Your task to perform on an android device: What's the weather today? Image 0: 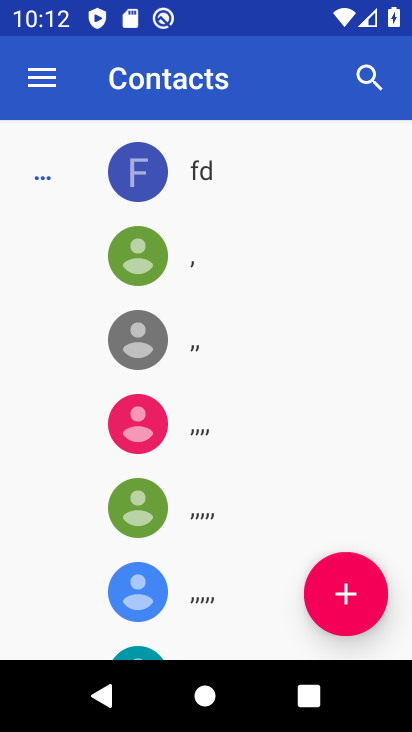
Step 0: press home button
Your task to perform on an android device: What's the weather today? Image 1: 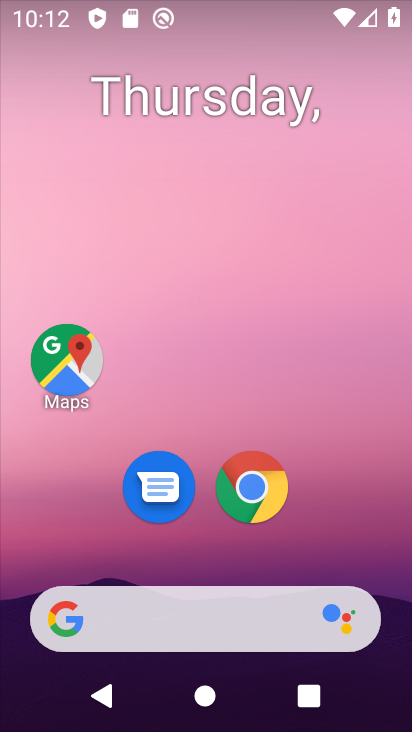
Step 1: drag from (313, 569) to (238, 181)
Your task to perform on an android device: What's the weather today? Image 2: 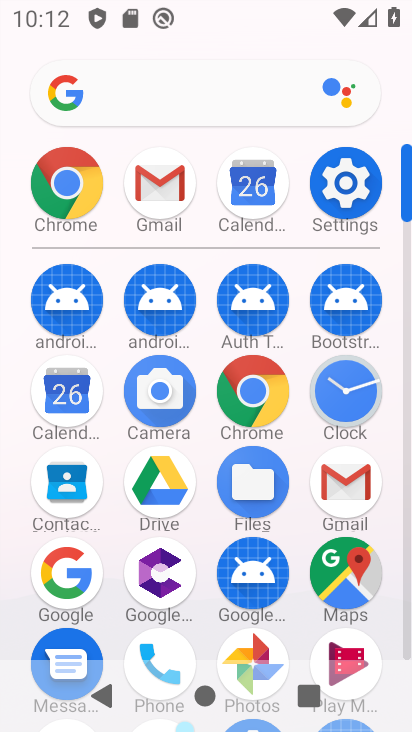
Step 2: click (65, 172)
Your task to perform on an android device: What's the weather today? Image 3: 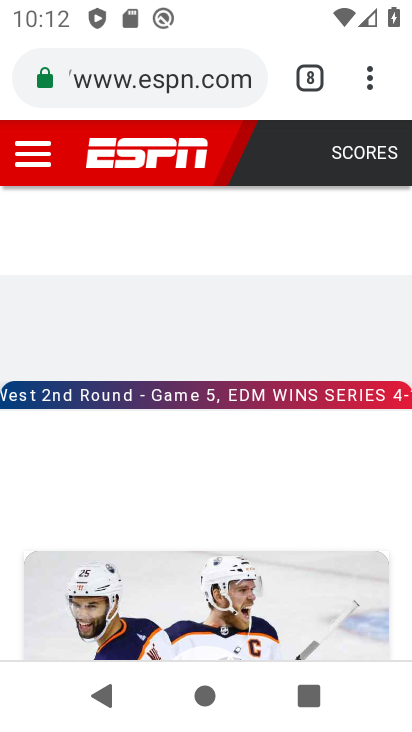
Step 3: click (310, 77)
Your task to perform on an android device: What's the weather today? Image 4: 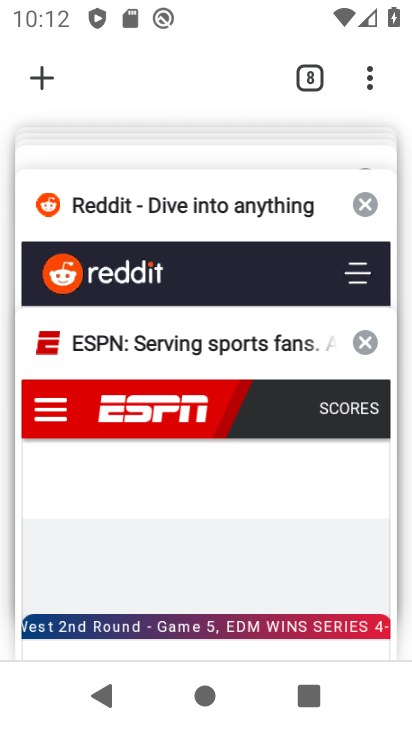
Step 4: drag from (240, 178) to (259, 659)
Your task to perform on an android device: What's the weather today? Image 5: 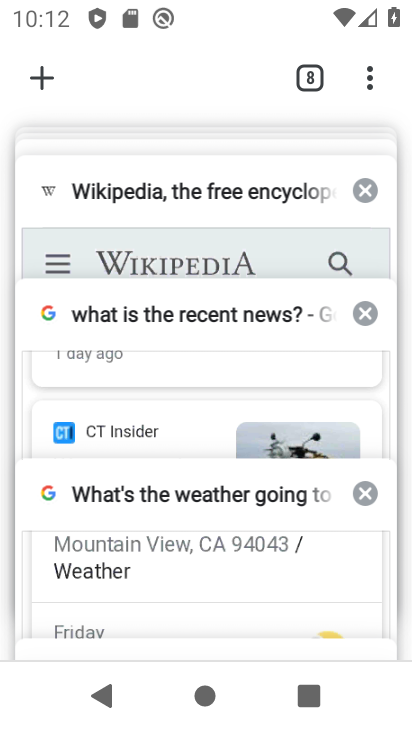
Step 5: drag from (208, 211) to (243, 611)
Your task to perform on an android device: What's the weather today? Image 6: 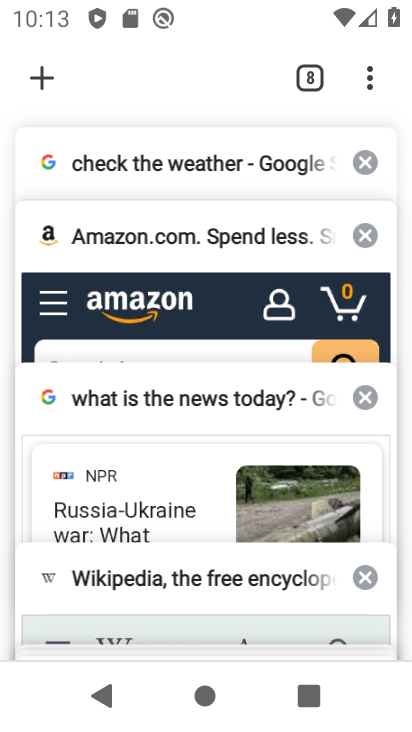
Step 6: click (240, 153)
Your task to perform on an android device: What's the weather today? Image 7: 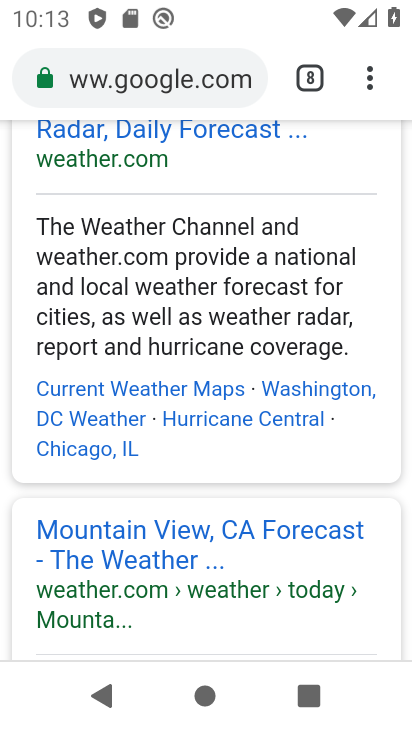
Step 7: task complete